Your task to perform on an android device: Open Chrome and go to settings Image 0: 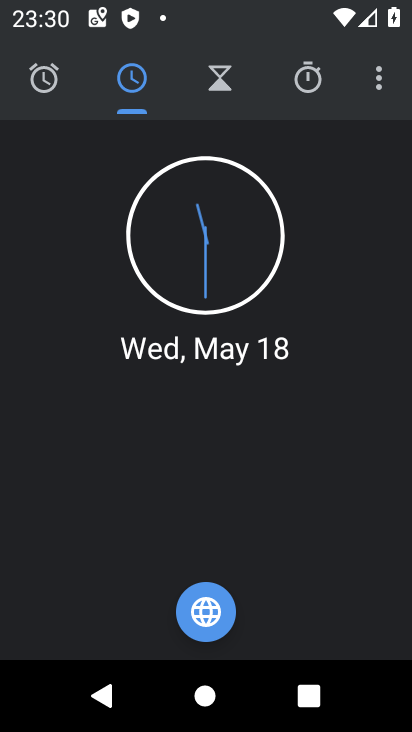
Step 0: press home button
Your task to perform on an android device: Open Chrome and go to settings Image 1: 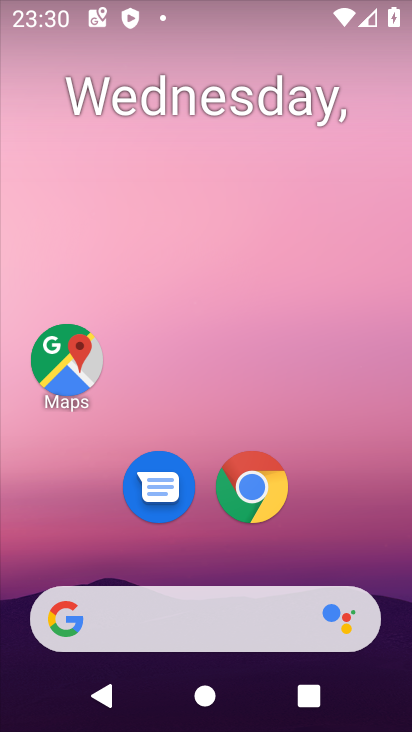
Step 1: click (253, 502)
Your task to perform on an android device: Open Chrome and go to settings Image 2: 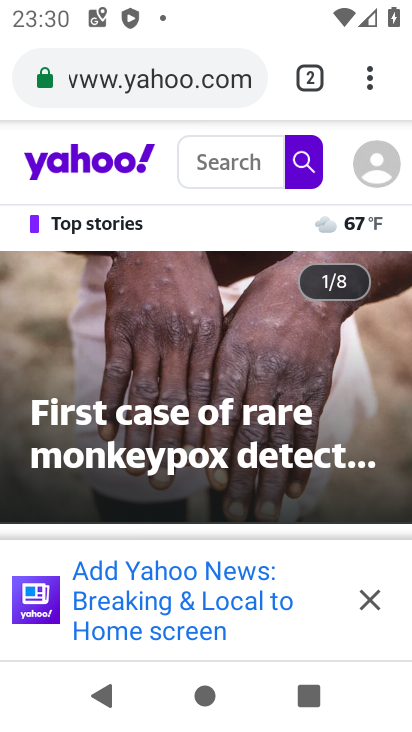
Step 2: click (374, 80)
Your task to perform on an android device: Open Chrome and go to settings Image 3: 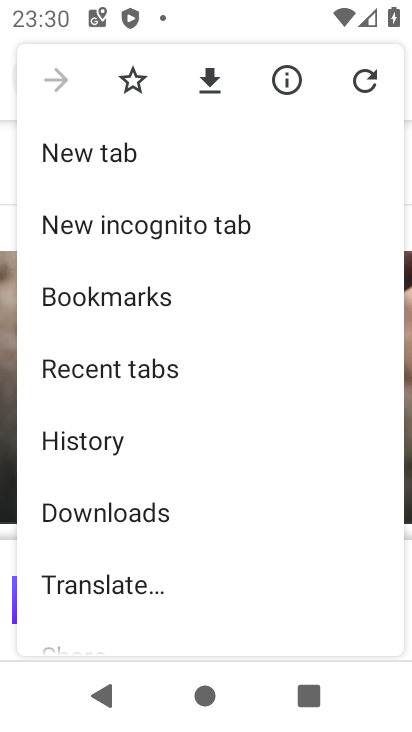
Step 3: drag from (231, 519) to (207, 179)
Your task to perform on an android device: Open Chrome and go to settings Image 4: 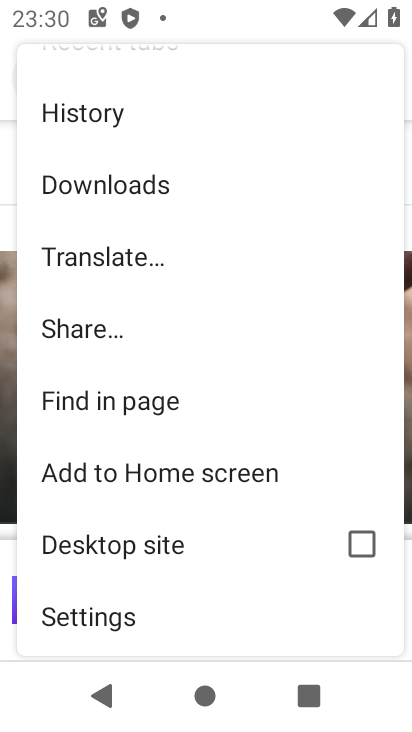
Step 4: drag from (210, 538) to (215, 222)
Your task to perform on an android device: Open Chrome and go to settings Image 5: 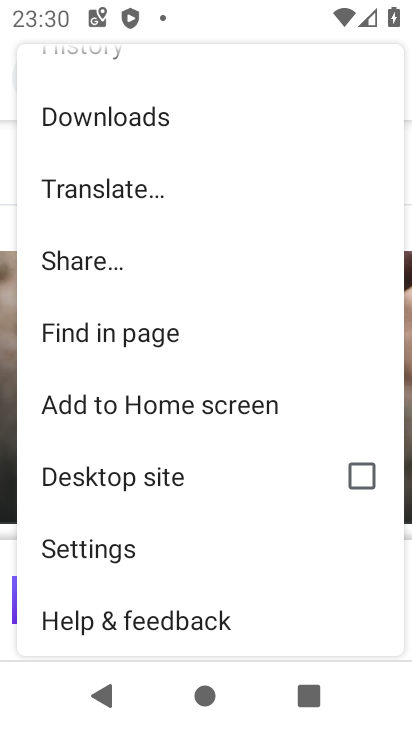
Step 5: click (89, 552)
Your task to perform on an android device: Open Chrome and go to settings Image 6: 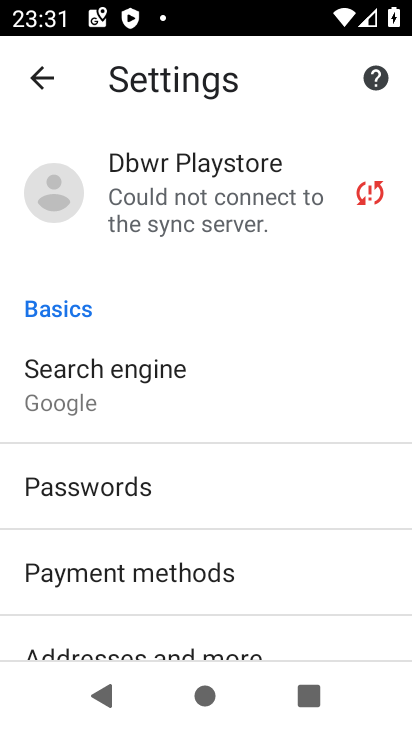
Step 6: task complete